Your task to perform on an android device: change the clock display to show seconds Image 0: 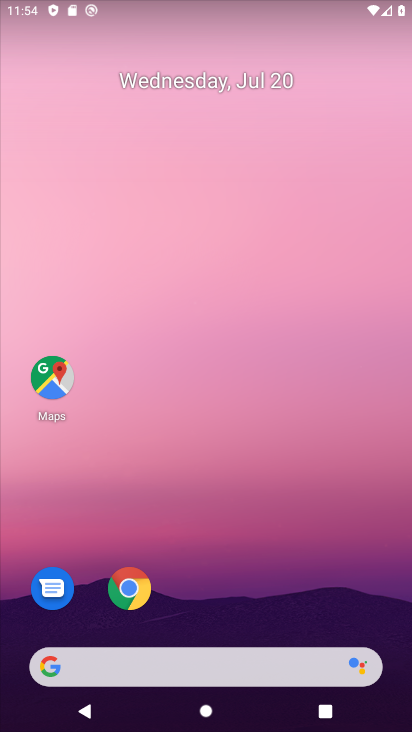
Step 0: drag from (233, 612) to (233, 255)
Your task to perform on an android device: change the clock display to show seconds Image 1: 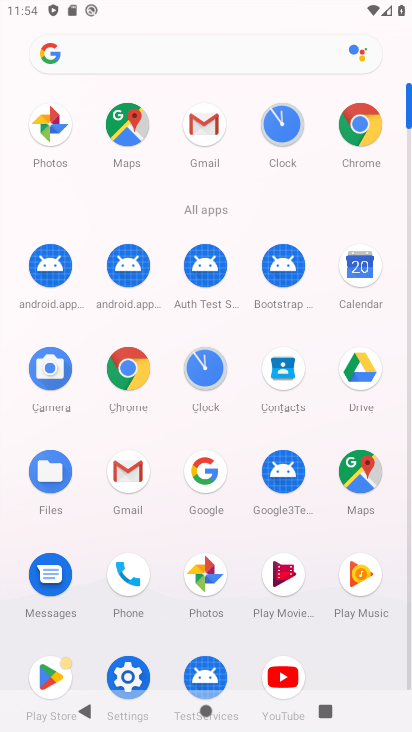
Step 1: click (209, 374)
Your task to perform on an android device: change the clock display to show seconds Image 2: 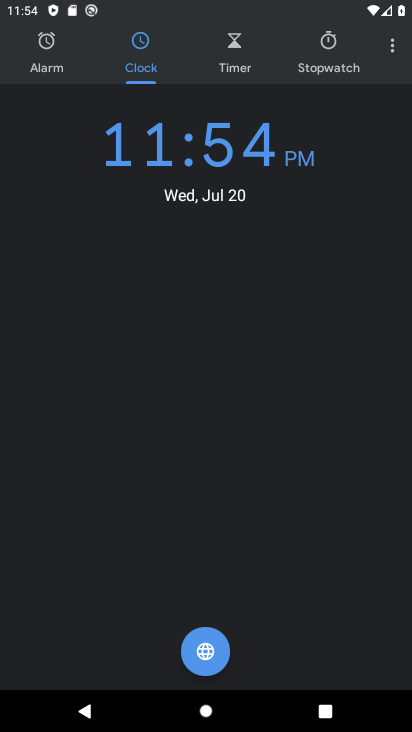
Step 2: click (396, 43)
Your task to perform on an android device: change the clock display to show seconds Image 3: 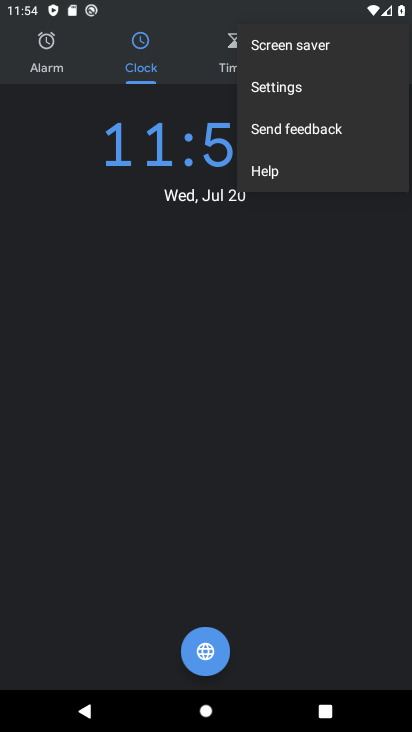
Step 3: click (303, 95)
Your task to perform on an android device: change the clock display to show seconds Image 4: 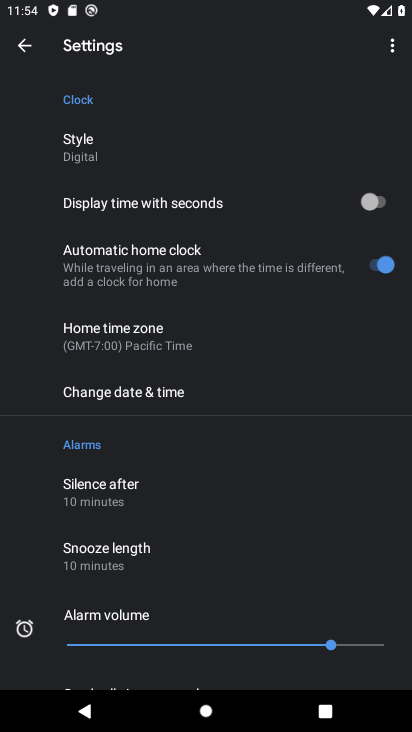
Step 4: click (369, 202)
Your task to perform on an android device: change the clock display to show seconds Image 5: 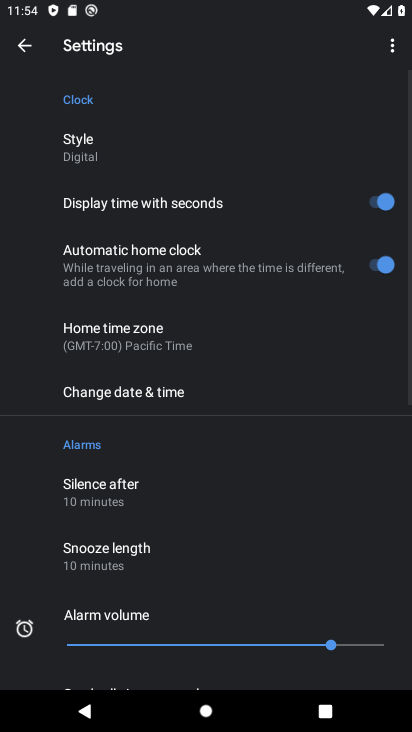
Step 5: task complete